Your task to perform on an android device: Go to accessibility settings Image 0: 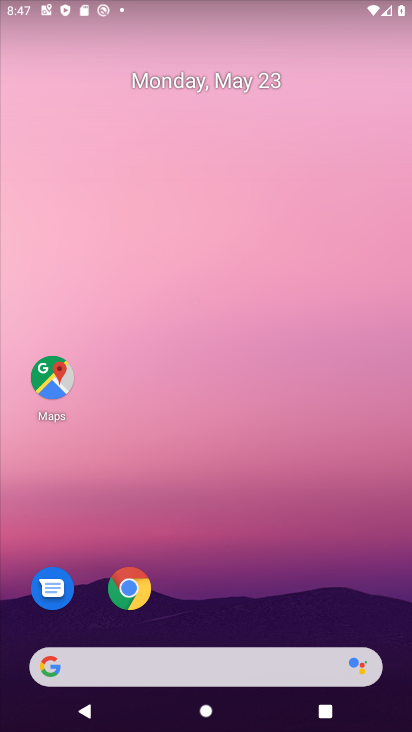
Step 0: drag from (390, 649) to (365, 36)
Your task to perform on an android device: Go to accessibility settings Image 1: 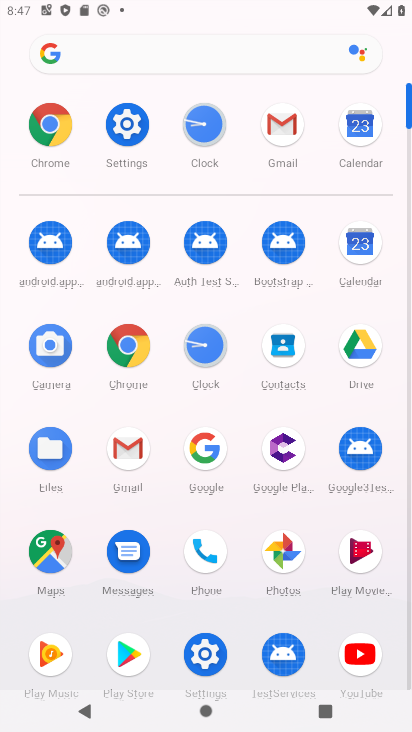
Step 1: click (116, 125)
Your task to perform on an android device: Go to accessibility settings Image 2: 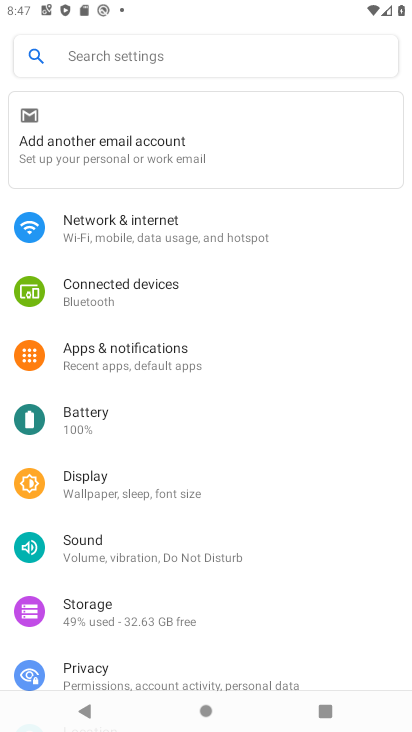
Step 2: drag from (358, 674) to (329, 116)
Your task to perform on an android device: Go to accessibility settings Image 3: 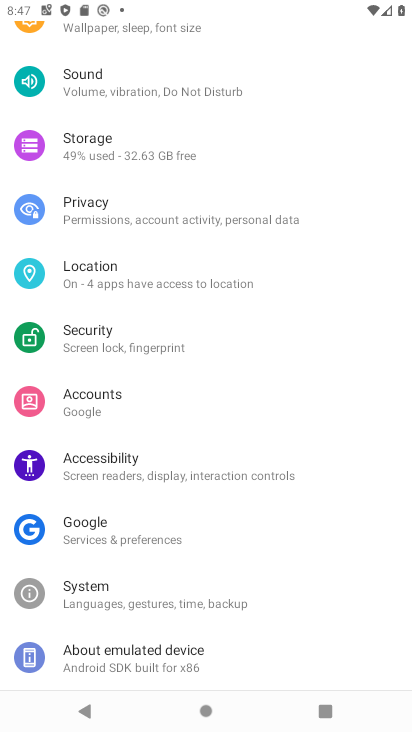
Step 3: click (85, 469)
Your task to perform on an android device: Go to accessibility settings Image 4: 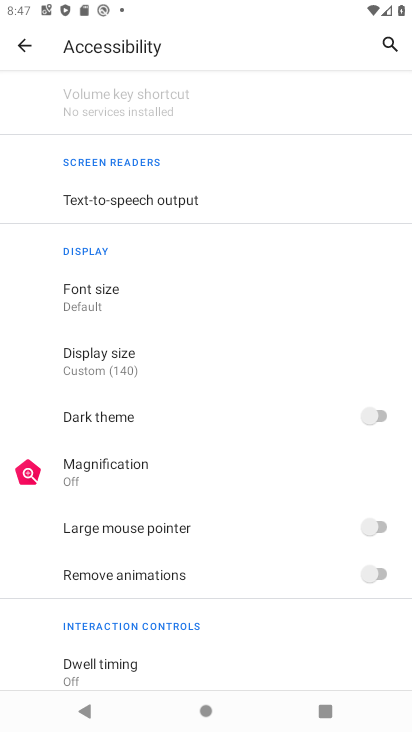
Step 4: task complete